Your task to perform on an android device: Open battery settings Image 0: 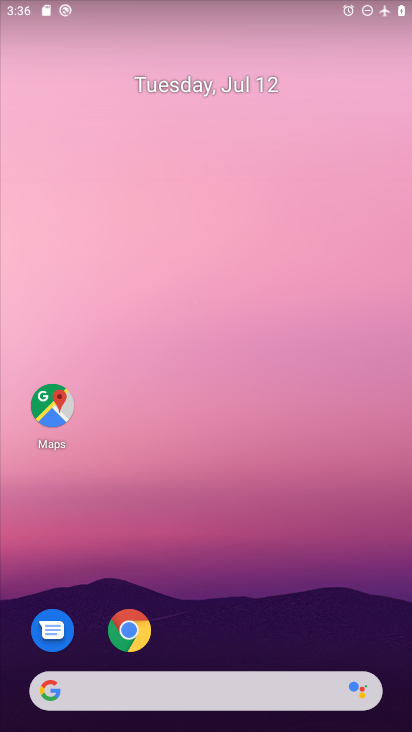
Step 0: drag from (217, 566) to (238, 167)
Your task to perform on an android device: Open battery settings Image 1: 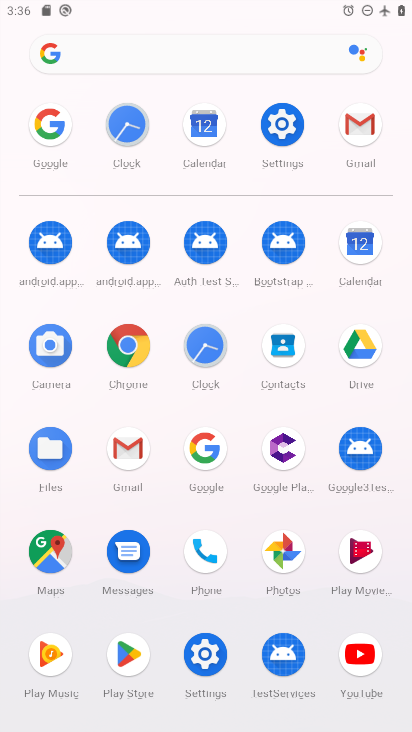
Step 1: click (269, 121)
Your task to perform on an android device: Open battery settings Image 2: 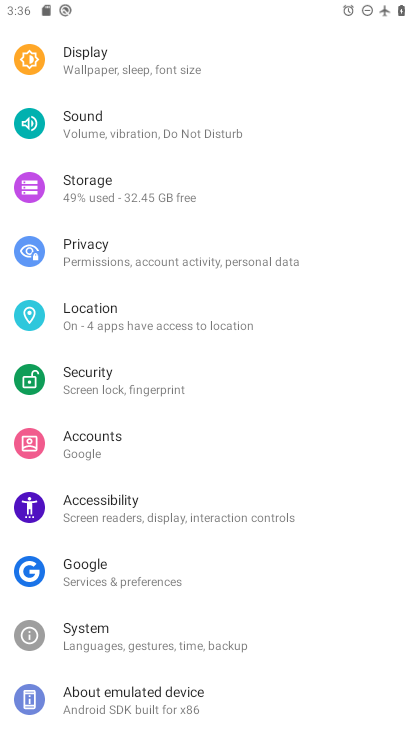
Step 2: drag from (193, 185) to (213, 493)
Your task to perform on an android device: Open battery settings Image 3: 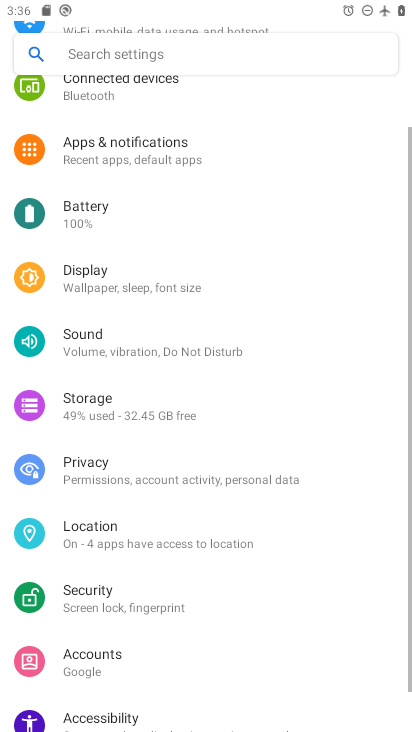
Step 3: click (102, 207)
Your task to perform on an android device: Open battery settings Image 4: 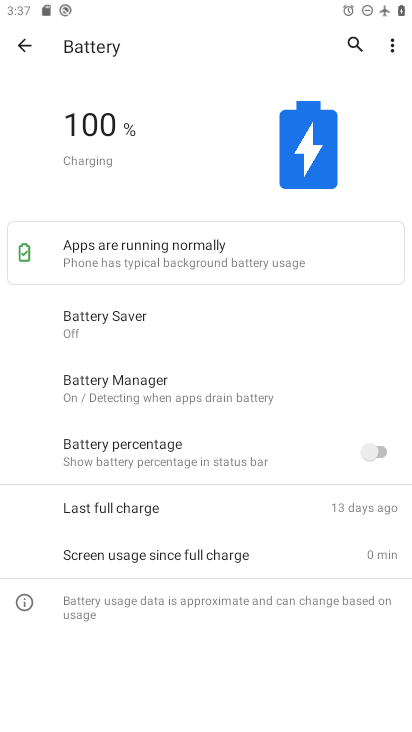
Step 4: task complete